Your task to perform on an android device: Open maps Image 0: 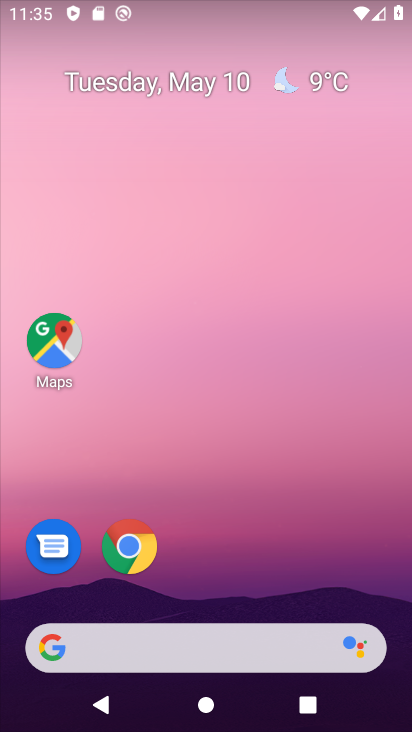
Step 0: click (57, 340)
Your task to perform on an android device: Open maps Image 1: 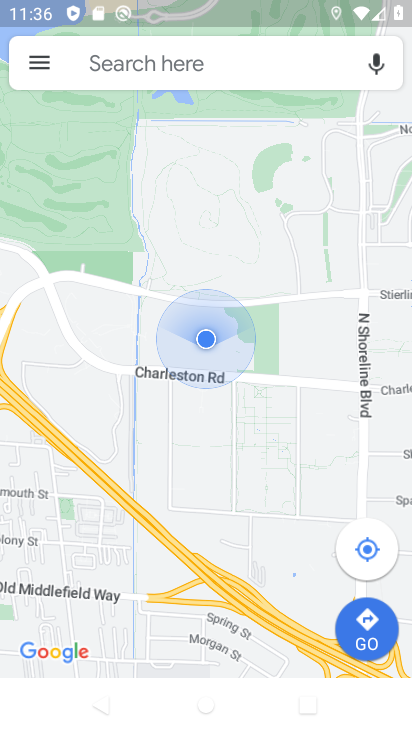
Step 1: task complete